Your task to perform on an android device: Find coffee shops on Maps Image 0: 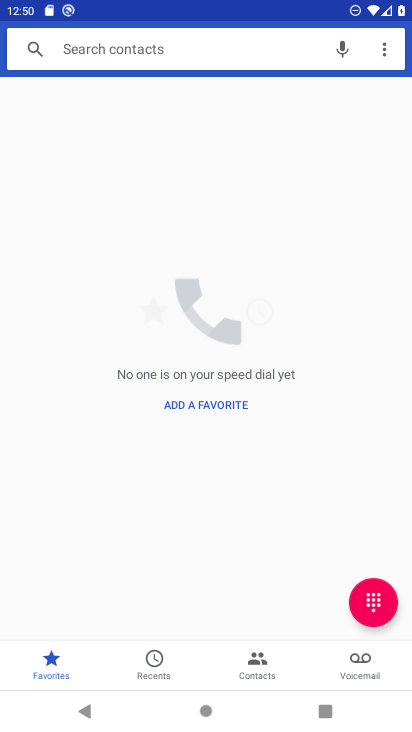
Step 0: press home button
Your task to perform on an android device: Find coffee shops on Maps Image 1: 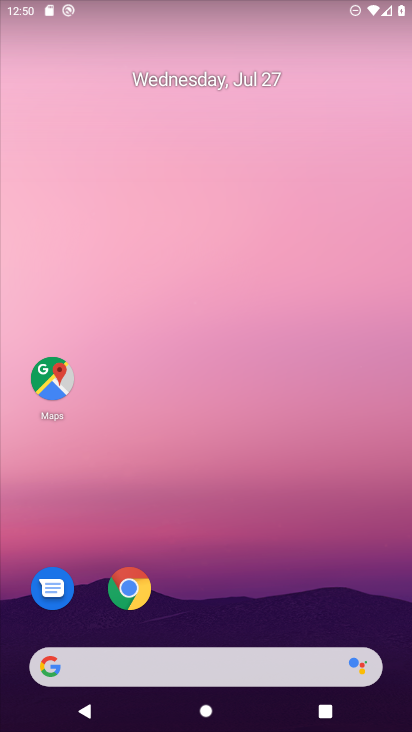
Step 1: click (47, 390)
Your task to perform on an android device: Find coffee shops on Maps Image 2: 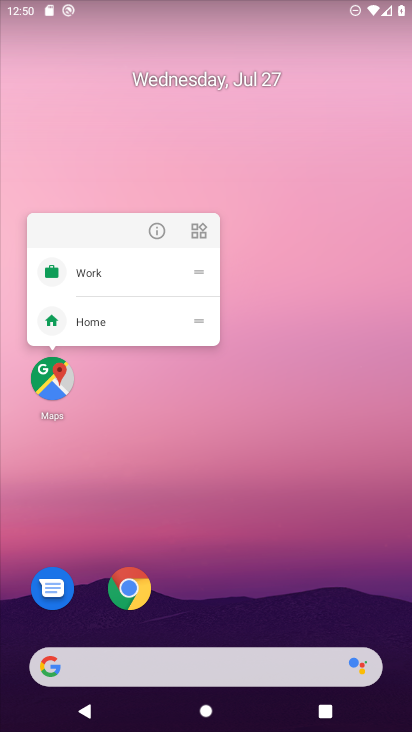
Step 2: click (48, 389)
Your task to perform on an android device: Find coffee shops on Maps Image 3: 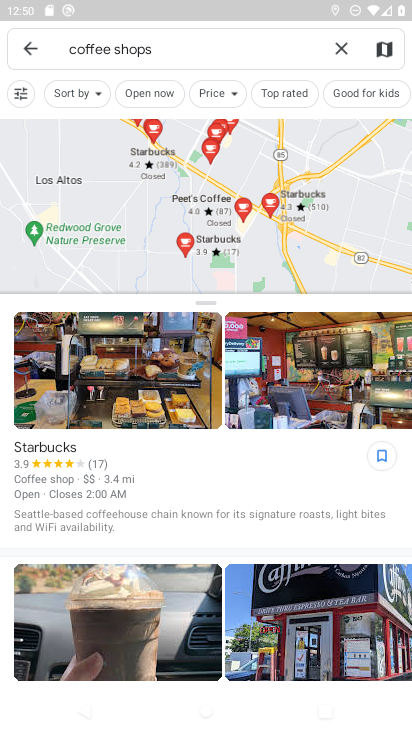
Step 3: task complete